Your task to perform on an android device: check the backup settings in the google photos Image 0: 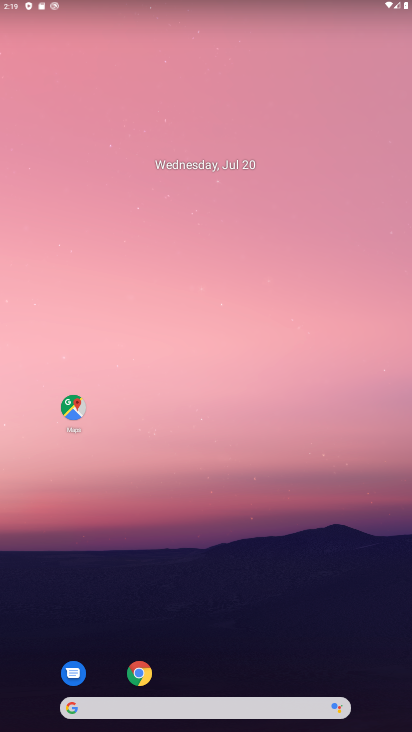
Step 0: drag from (271, 680) to (149, 187)
Your task to perform on an android device: check the backup settings in the google photos Image 1: 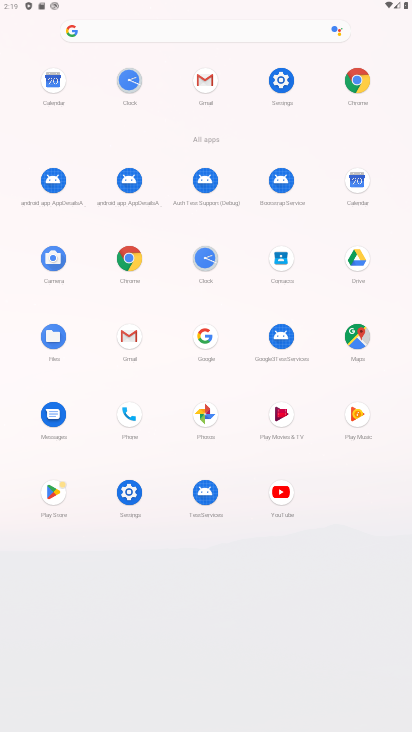
Step 1: click (204, 400)
Your task to perform on an android device: check the backup settings in the google photos Image 2: 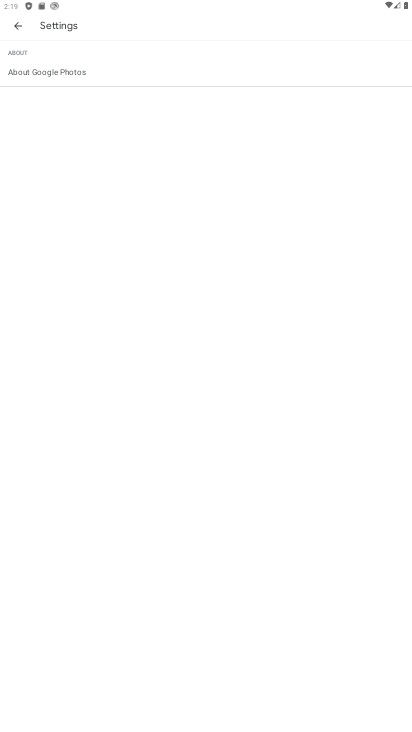
Step 2: click (13, 25)
Your task to perform on an android device: check the backup settings in the google photos Image 3: 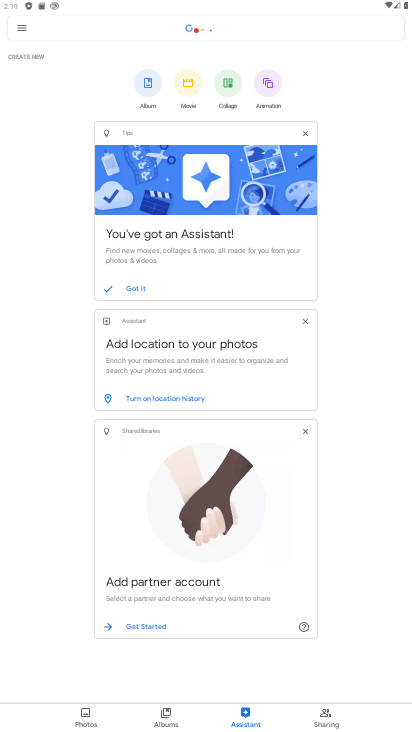
Step 3: task complete